Your task to perform on an android device: Open the stopwatch Image 0: 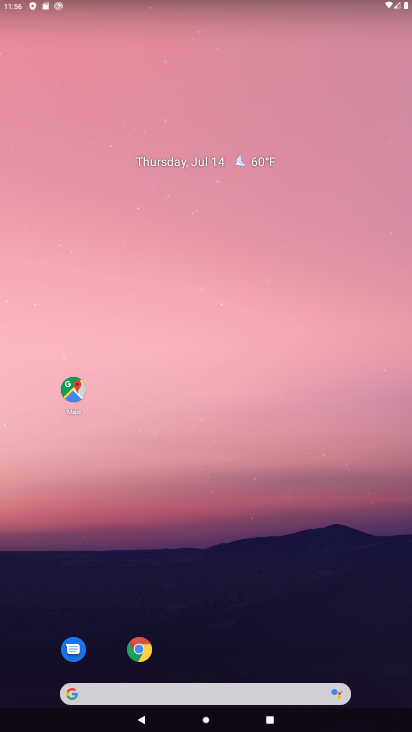
Step 0: drag from (247, 628) to (239, 262)
Your task to perform on an android device: Open the stopwatch Image 1: 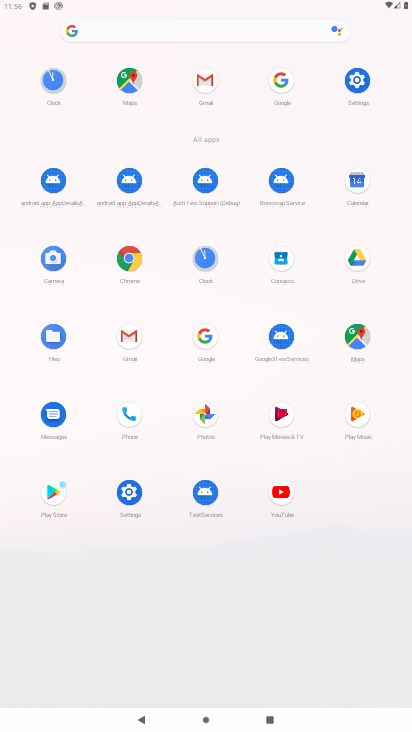
Step 1: click (211, 260)
Your task to perform on an android device: Open the stopwatch Image 2: 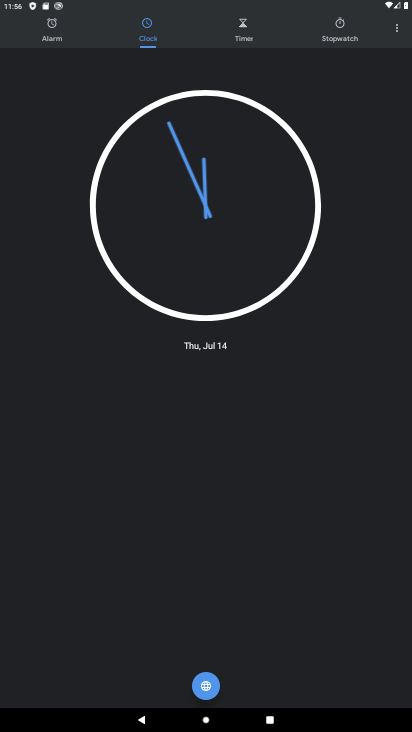
Step 2: click (334, 24)
Your task to perform on an android device: Open the stopwatch Image 3: 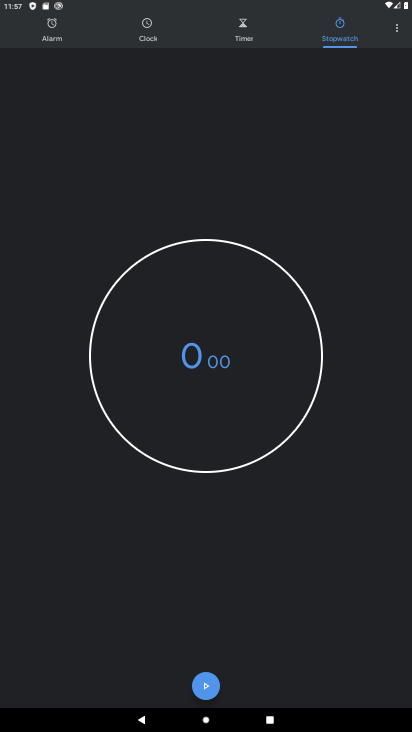
Step 3: task complete